Your task to perform on an android device: toggle airplane mode Image 0: 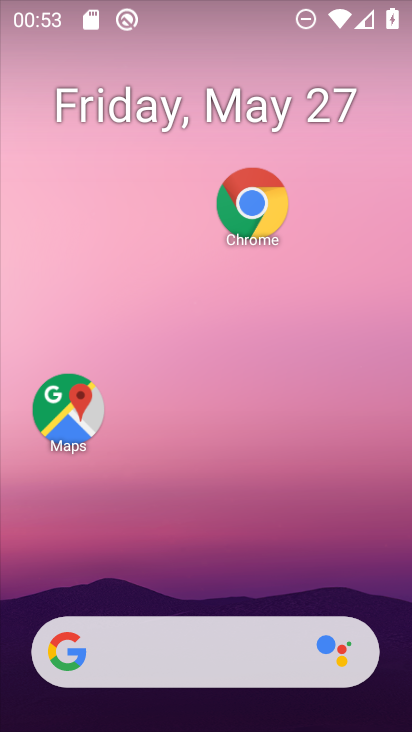
Step 0: drag from (151, 559) to (109, 46)
Your task to perform on an android device: toggle airplane mode Image 1: 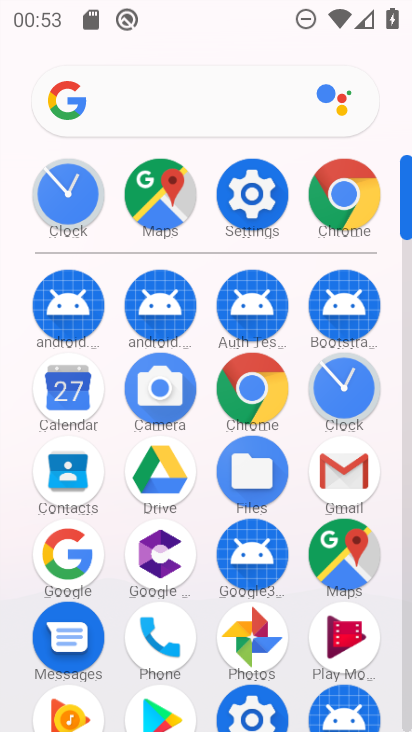
Step 1: click (273, 190)
Your task to perform on an android device: toggle airplane mode Image 2: 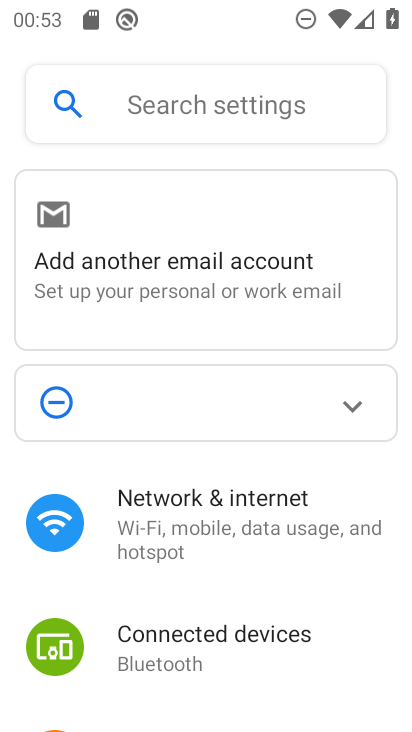
Step 2: click (289, 498)
Your task to perform on an android device: toggle airplane mode Image 3: 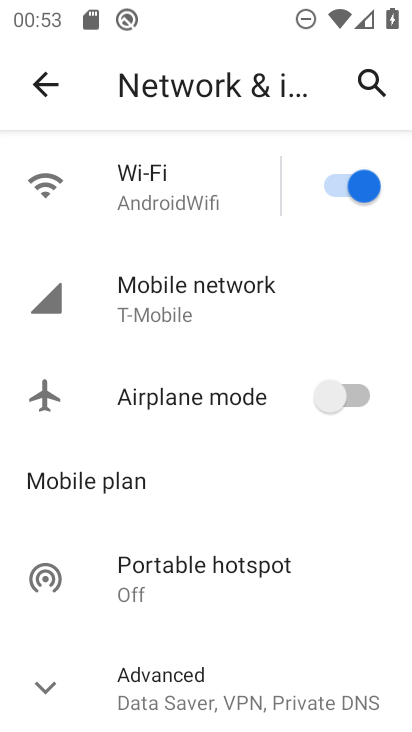
Step 3: click (196, 383)
Your task to perform on an android device: toggle airplane mode Image 4: 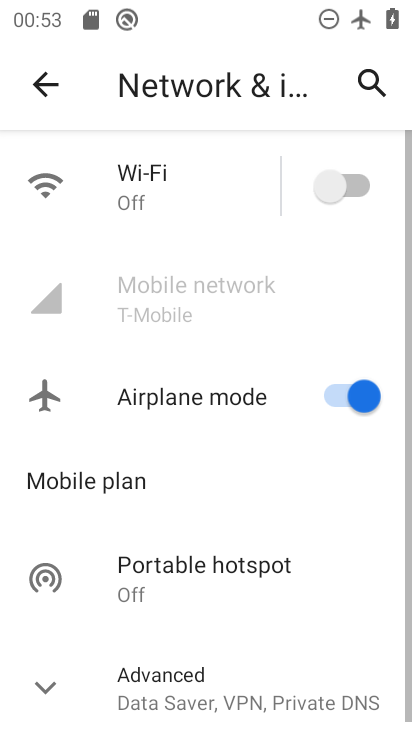
Step 4: task complete